Your task to perform on an android device: Open Chrome and go to settings Image 0: 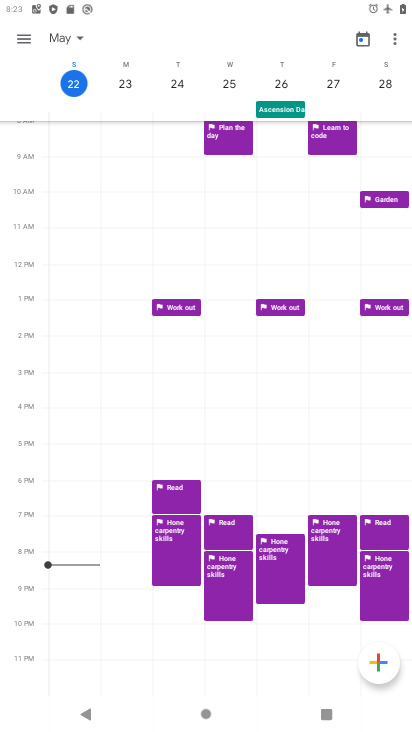
Step 0: press home button
Your task to perform on an android device: Open Chrome and go to settings Image 1: 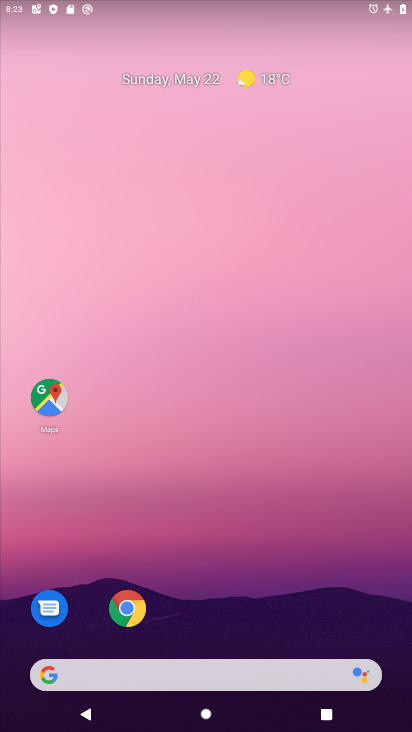
Step 1: click (126, 607)
Your task to perform on an android device: Open Chrome and go to settings Image 2: 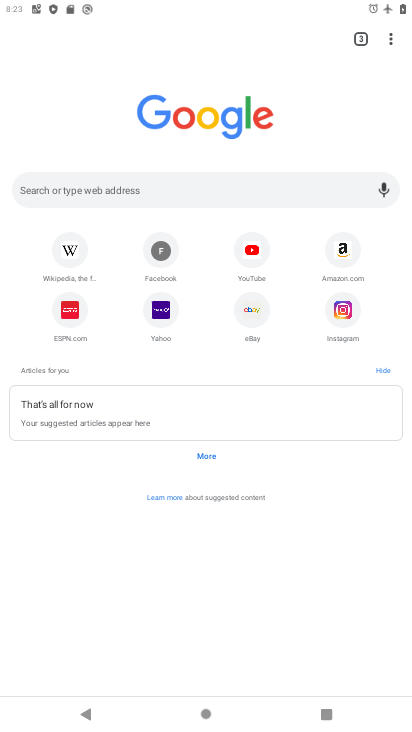
Step 2: click (392, 47)
Your task to perform on an android device: Open Chrome and go to settings Image 3: 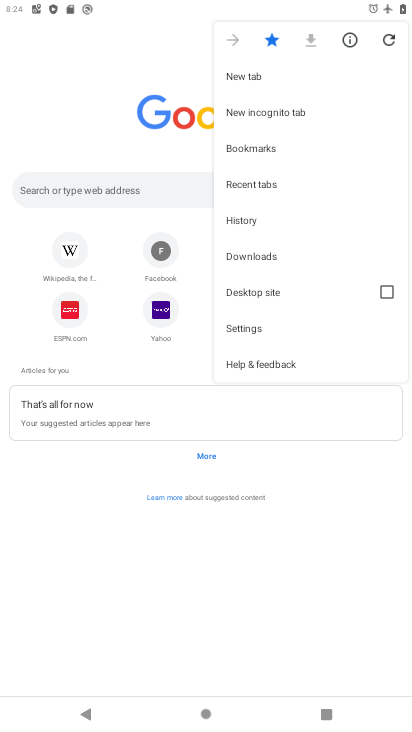
Step 3: click (252, 325)
Your task to perform on an android device: Open Chrome and go to settings Image 4: 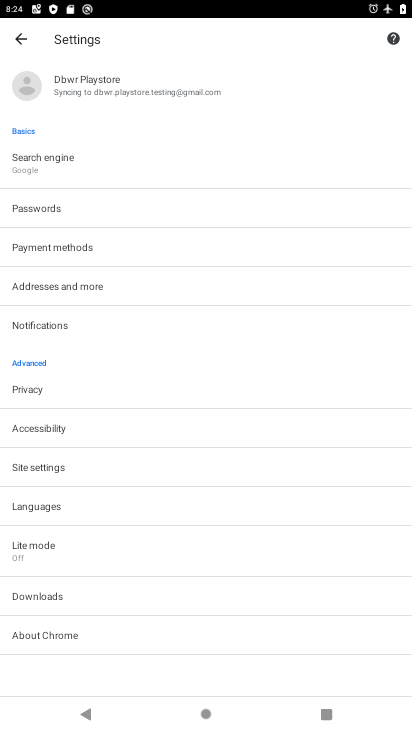
Step 4: task complete